Your task to perform on an android device: Set the phone to "Do not disturb". Image 0: 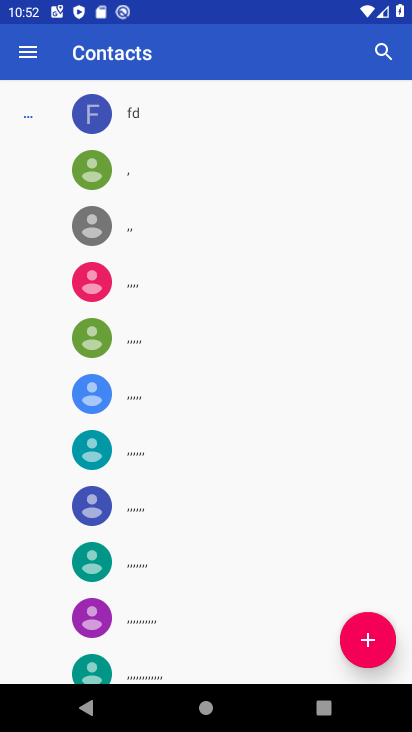
Step 0: press home button
Your task to perform on an android device: Set the phone to "Do not disturb". Image 1: 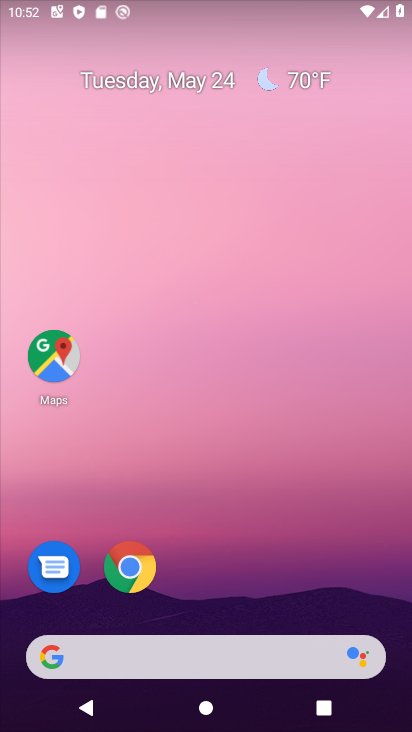
Step 1: drag from (402, 667) to (376, 223)
Your task to perform on an android device: Set the phone to "Do not disturb". Image 2: 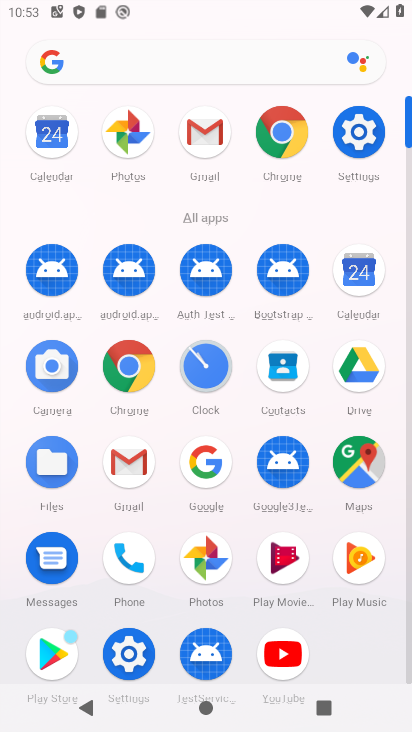
Step 2: click (357, 119)
Your task to perform on an android device: Set the phone to "Do not disturb". Image 3: 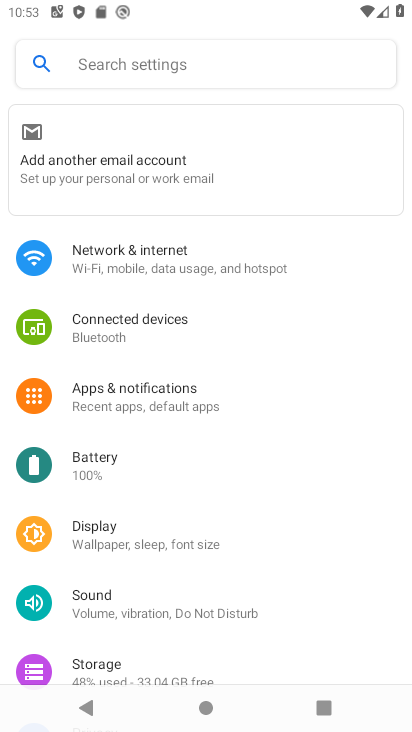
Step 3: drag from (297, 628) to (311, 259)
Your task to perform on an android device: Set the phone to "Do not disturb". Image 4: 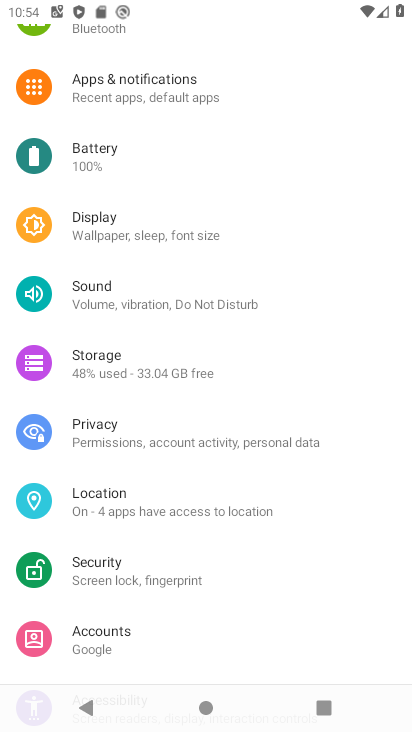
Step 4: click (87, 288)
Your task to perform on an android device: Set the phone to "Do not disturb". Image 5: 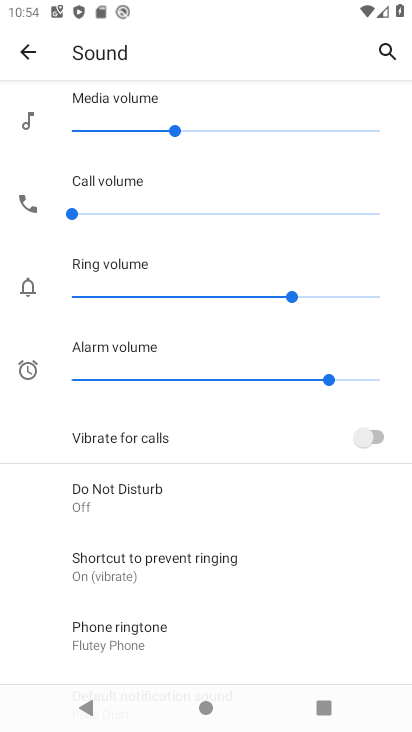
Step 5: drag from (259, 654) to (272, 275)
Your task to perform on an android device: Set the phone to "Do not disturb". Image 6: 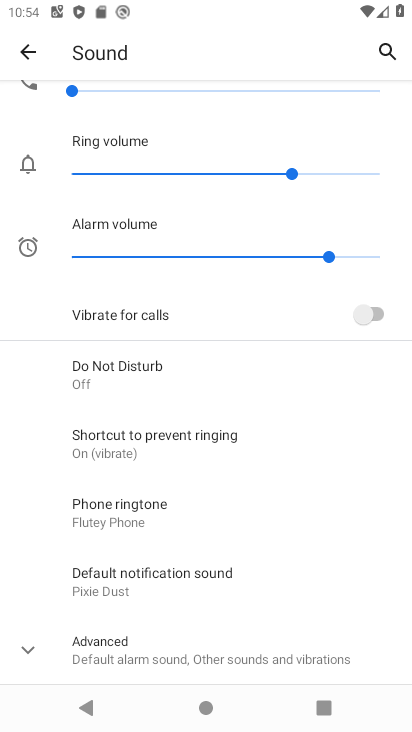
Step 6: click (96, 368)
Your task to perform on an android device: Set the phone to "Do not disturb". Image 7: 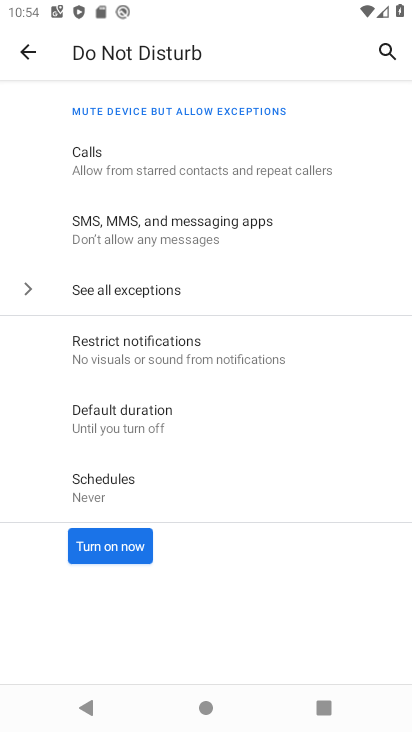
Step 7: click (106, 537)
Your task to perform on an android device: Set the phone to "Do not disturb". Image 8: 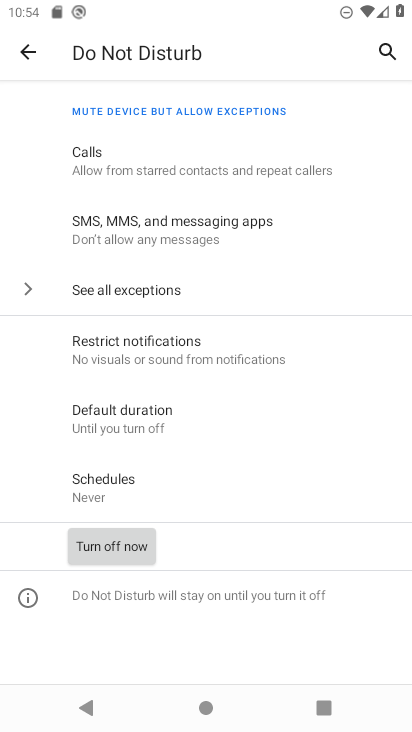
Step 8: task complete